Your task to perform on an android device: set default search engine in the chrome app Image 0: 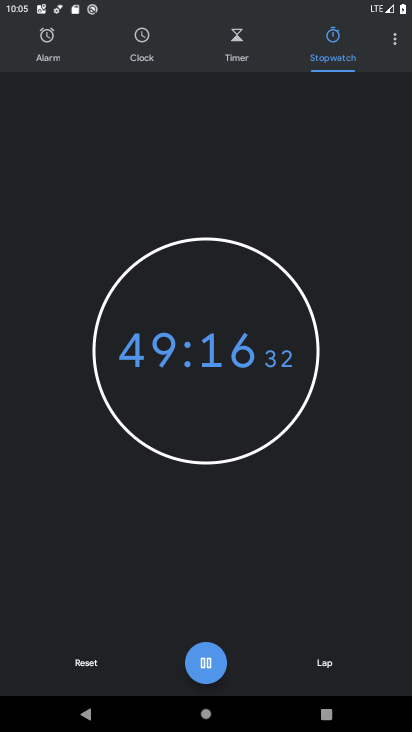
Step 0: press home button
Your task to perform on an android device: set default search engine in the chrome app Image 1: 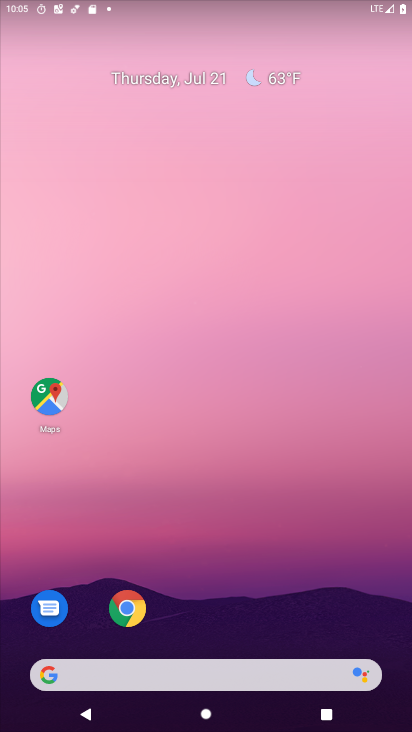
Step 1: click (139, 615)
Your task to perform on an android device: set default search engine in the chrome app Image 2: 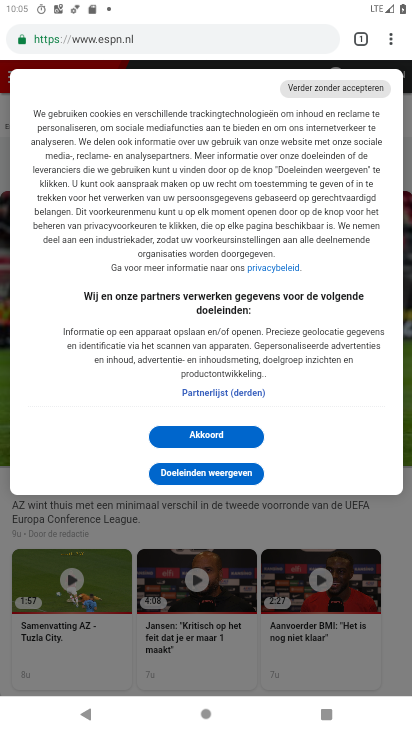
Step 2: click (395, 38)
Your task to perform on an android device: set default search engine in the chrome app Image 3: 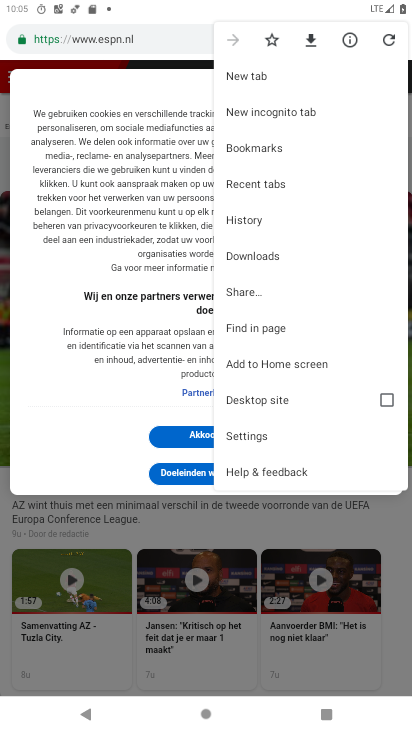
Step 3: click (257, 425)
Your task to perform on an android device: set default search engine in the chrome app Image 4: 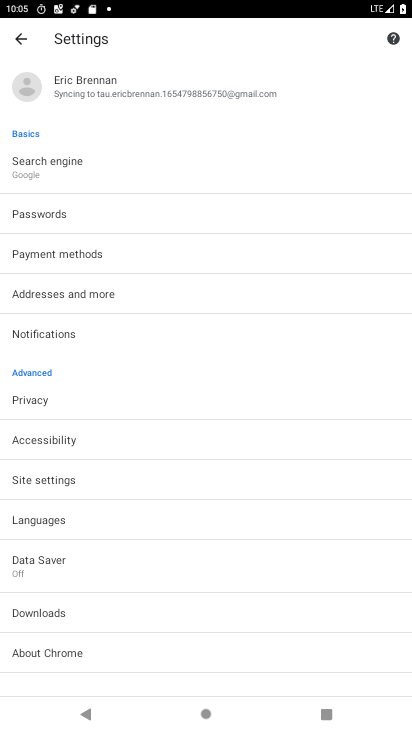
Step 4: click (58, 172)
Your task to perform on an android device: set default search engine in the chrome app Image 5: 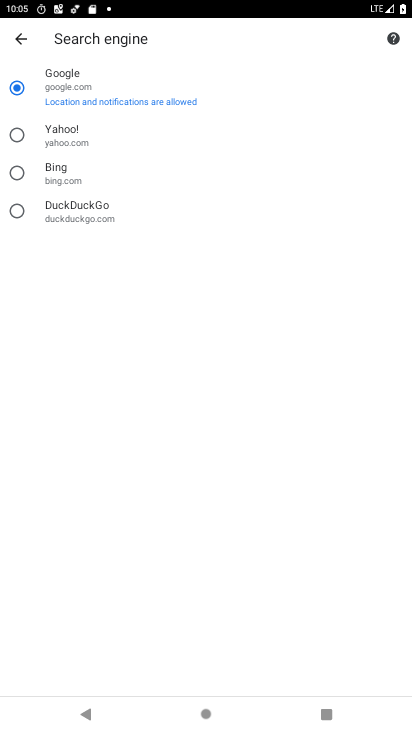
Step 5: task complete